Your task to perform on an android device: all mails in gmail Image 0: 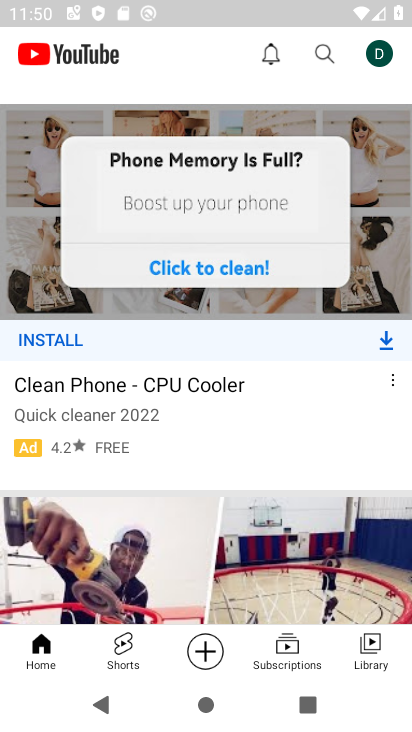
Step 0: press home button
Your task to perform on an android device: all mails in gmail Image 1: 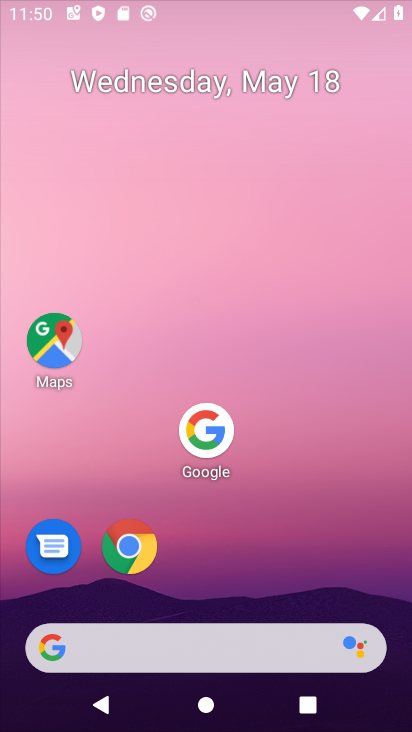
Step 1: drag from (266, 544) to (265, 47)
Your task to perform on an android device: all mails in gmail Image 2: 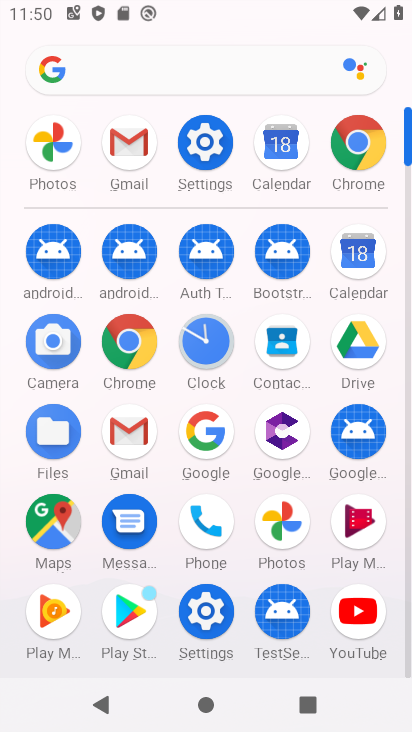
Step 2: click (130, 151)
Your task to perform on an android device: all mails in gmail Image 3: 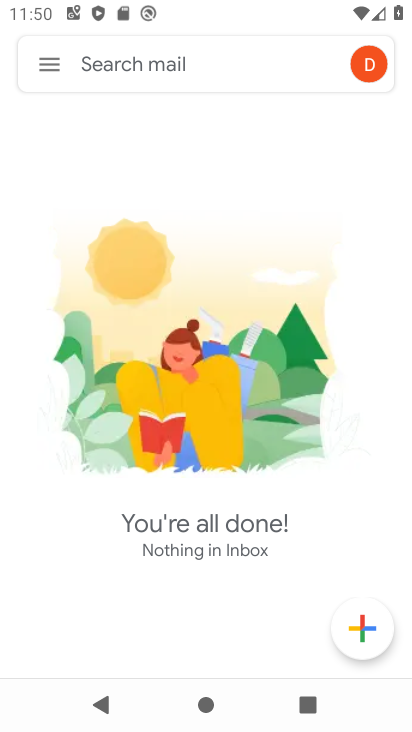
Step 3: click (48, 68)
Your task to perform on an android device: all mails in gmail Image 4: 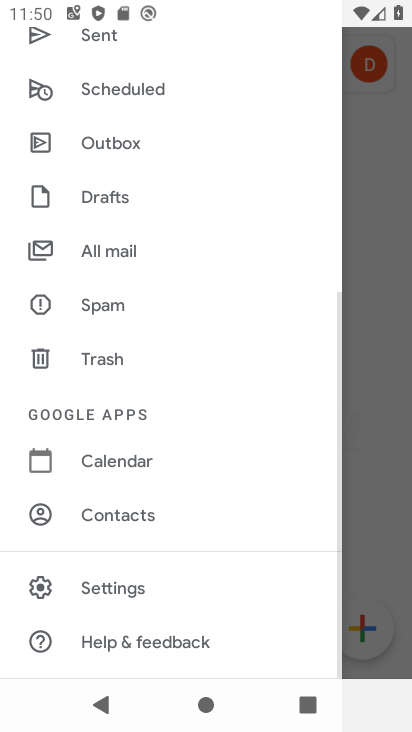
Step 4: click (117, 258)
Your task to perform on an android device: all mails in gmail Image 5: 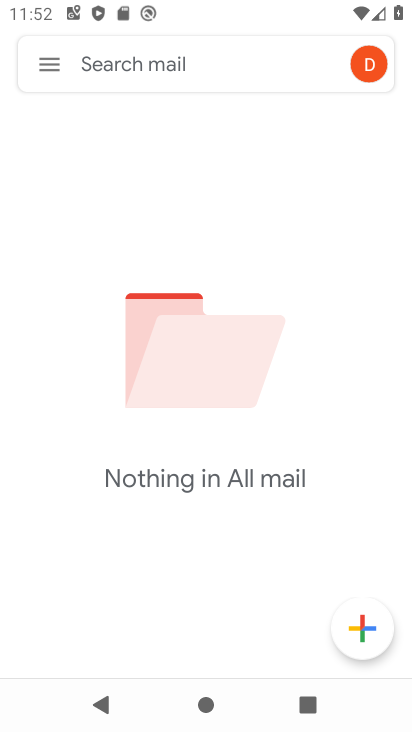
Step 5: task complete